Your task to perform on an android device: What's on my calendar tomorrow? Image 0: 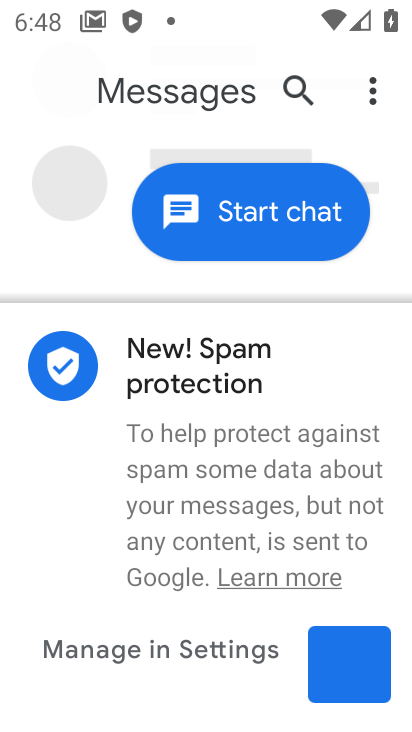
Step 0: click (24, 684)
Your task to perform on an android device: What's on my calendar tomorrow? Image 1: 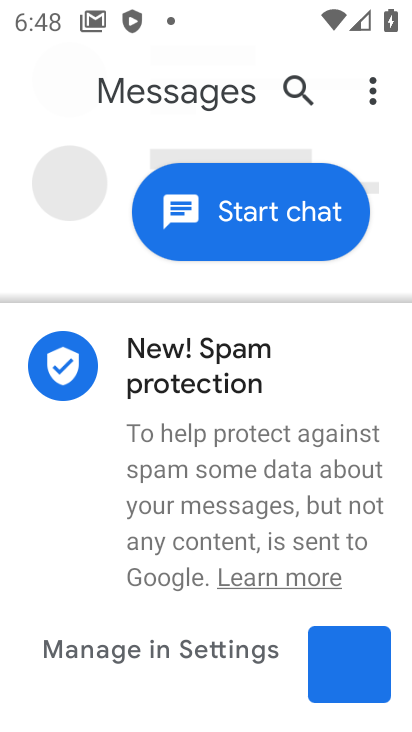
Step 1: press home button
Your task to perform on an android device: What's on my calendar tomorrow? Image 2: 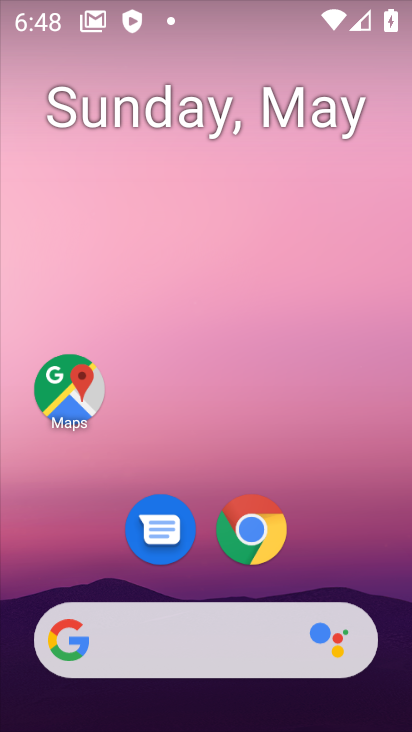
Step 2: drag from (296, 567) to (362, 145)
Your task to perform on an android device: What's on my calendar tomorrow? Image 3: 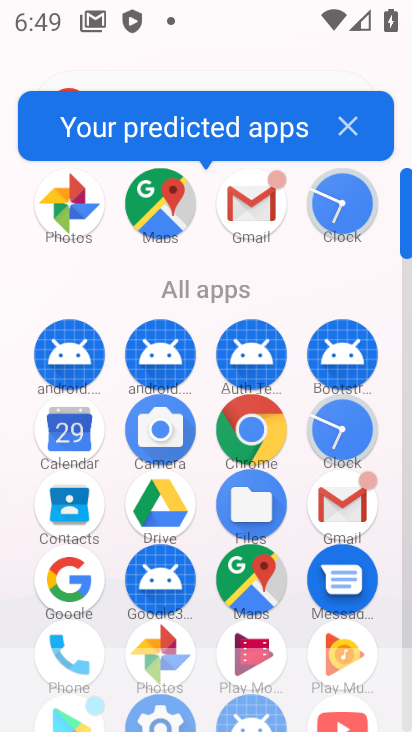
Step 3: click (77, 435)
Your task to perform on an android device: What's on my calendar tomorrow? Image 4: 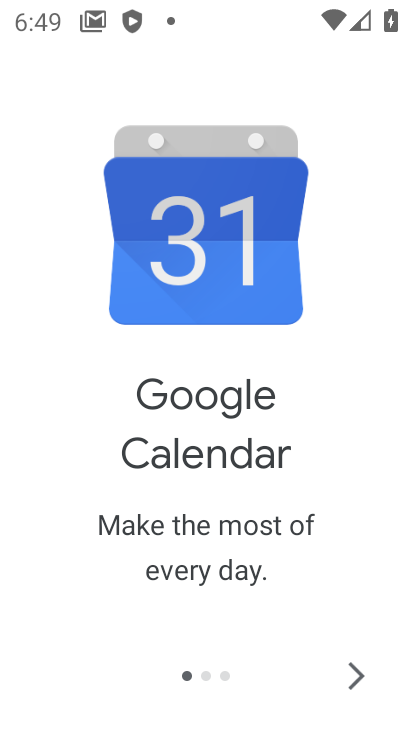
Step 4: click (357, 671)
Your task to perform on an android device: What's on my calendar tomorrow? Image 5: 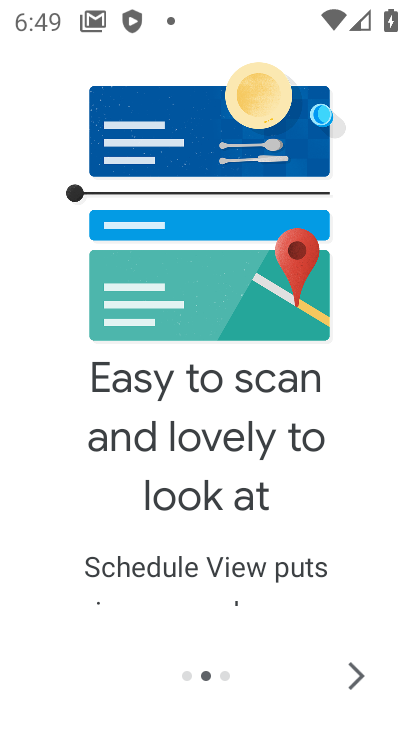
Step 5: click (355, 670)
Your task to perform on an android device: What's on my calendar tomorrow? Image 6: 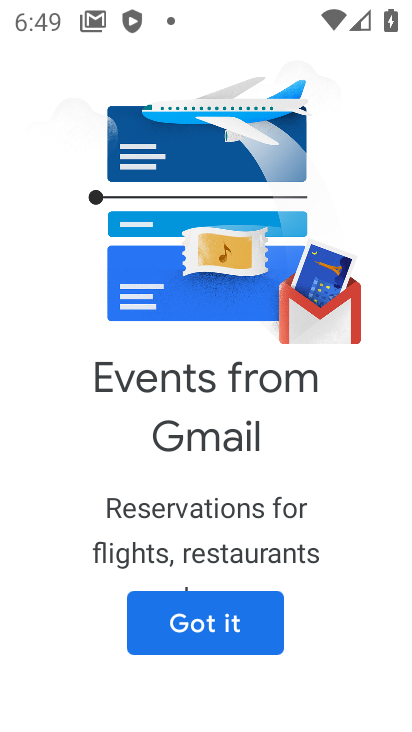
Step 6: click (355, 667)
Your task to perform on an android device: What's on my calendar tomorrow? Image 7: 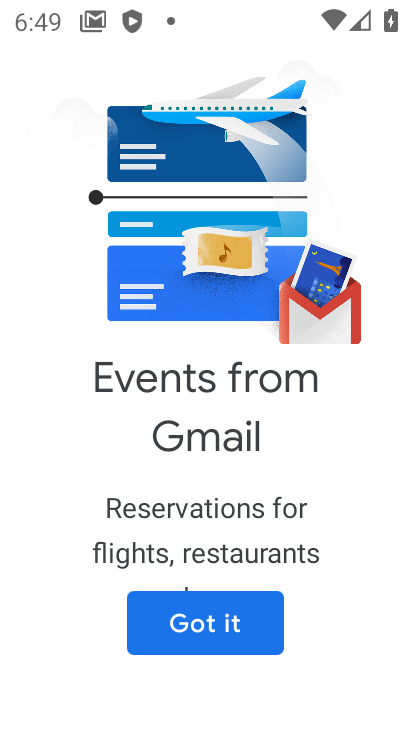
Step 7: click (252, 608)
Your task to perform on an android device: What's on my calendar tomorrow? Image 8: 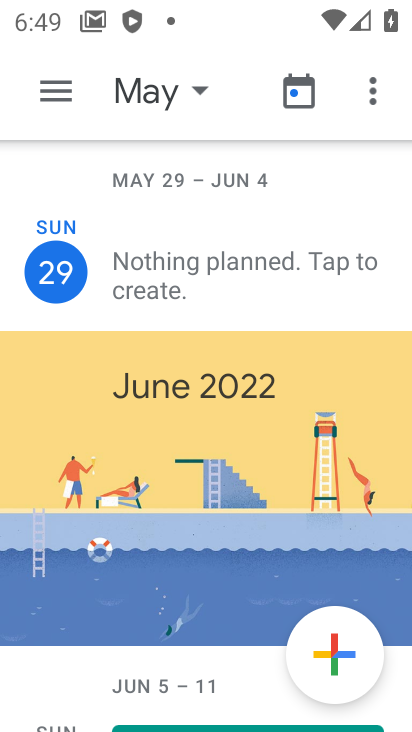
Step 8: click (180, 101)
Your task to perform on an android device: What's on my calendar tomorrow? Image 9: 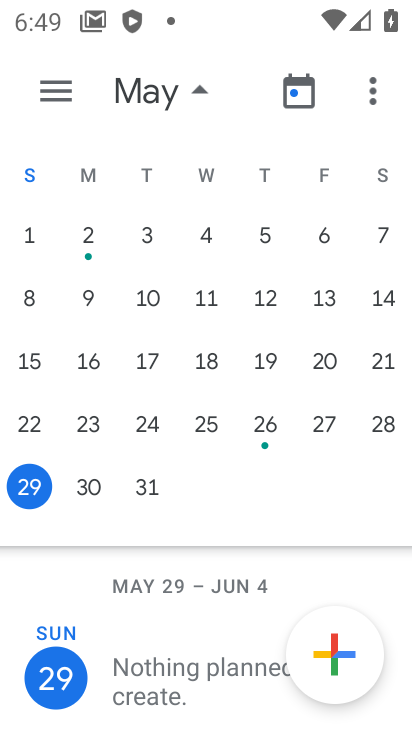
Step 9: click (98, 489)
Your task to perform on an android device: What's on my calendar tomorrow? Image 10: 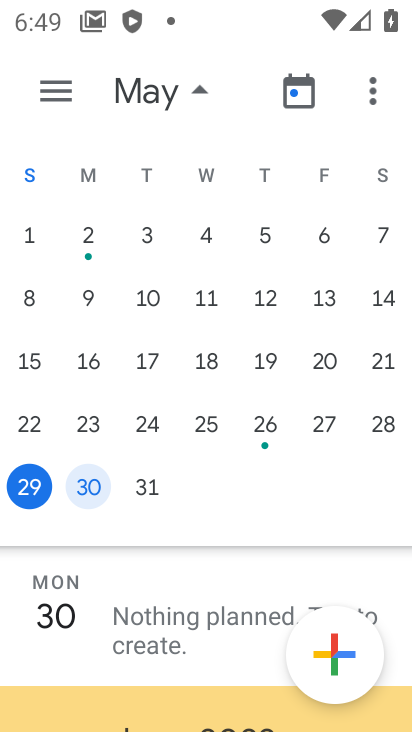
Step 10: click (165, 482)
Your task to perform on an android device: What's on my calendar tomorrow? Image 11: 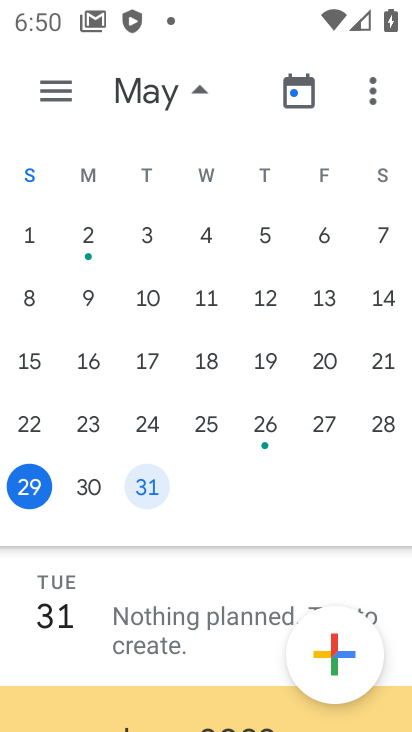
Step 11: task complete